Your task to perform on an android device: toggle pop-ups in chrome Image 0: 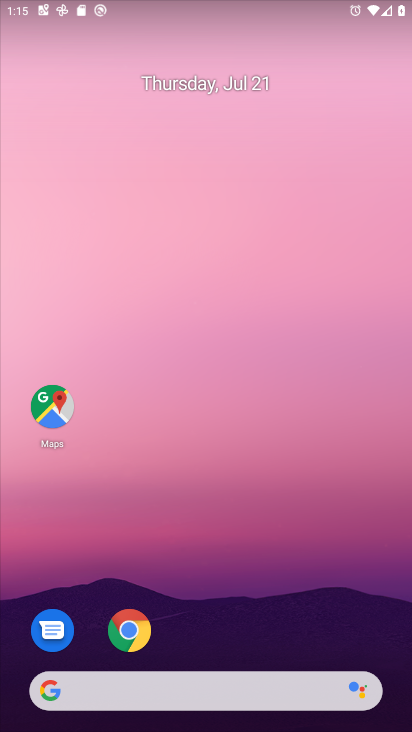
Step 0: click (136, 633)
Your task to perform on an android device: toggle pop-ups in chrome Image 1: 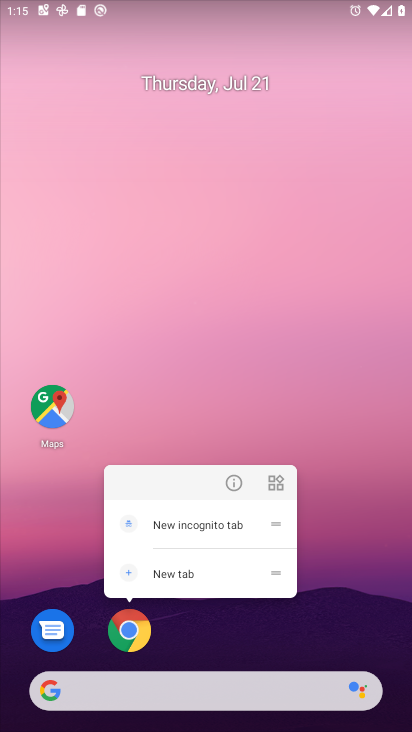
Step 1: click (237, 484)
Your task to perform on an android device: toggle pop-ups in chrome Image 2: 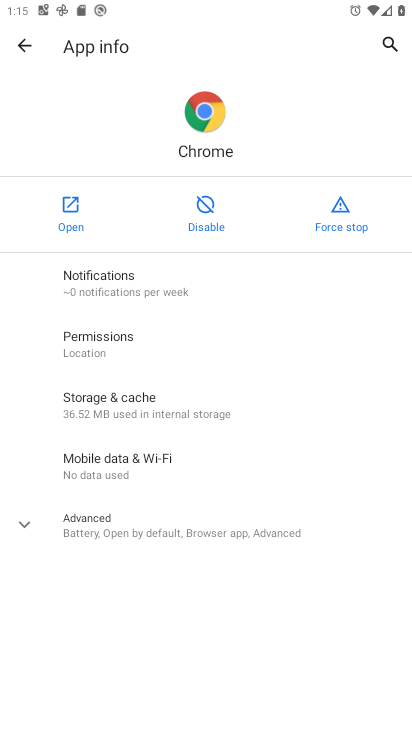
Step 2: click (77, 214)
Your task to perform on an android device: toggle pop-ups in chrome Image 3: 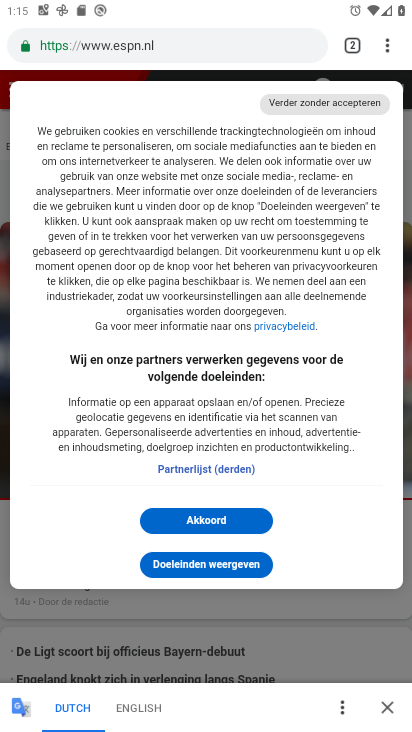
Step 3: drag from (392, 46) to (262, 542)
Your task to perform on an android device: toggle pop-ups in chrome Image 4: 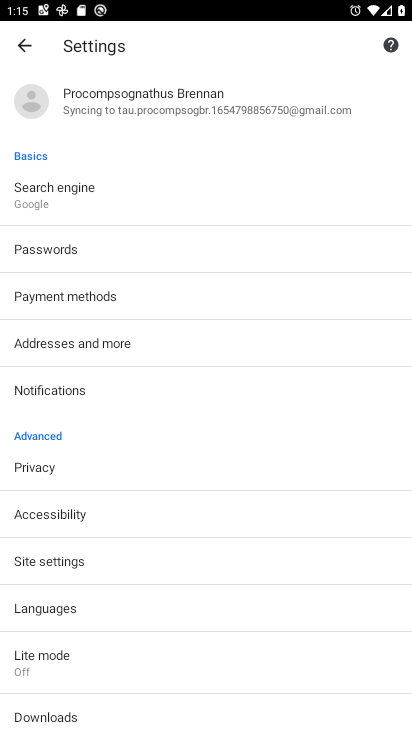
Step 4: click (74, 563)
Your task to perform on an android device: toggle pop-ups in chrome Image 5: 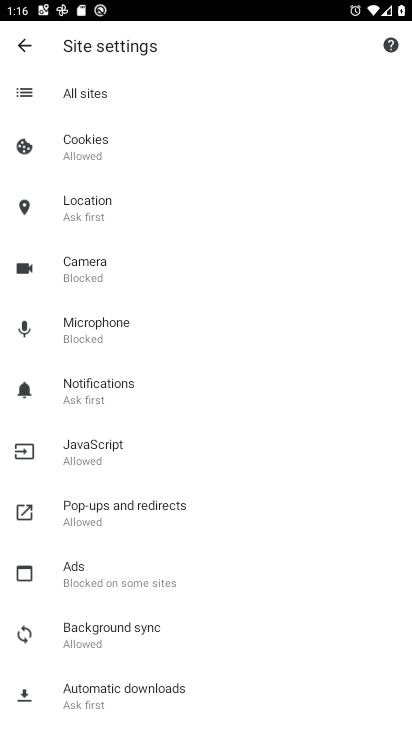
Step 5: click (116, 520)
Your task to perform on an android device: toggle pop-ups in chrome Image 6: 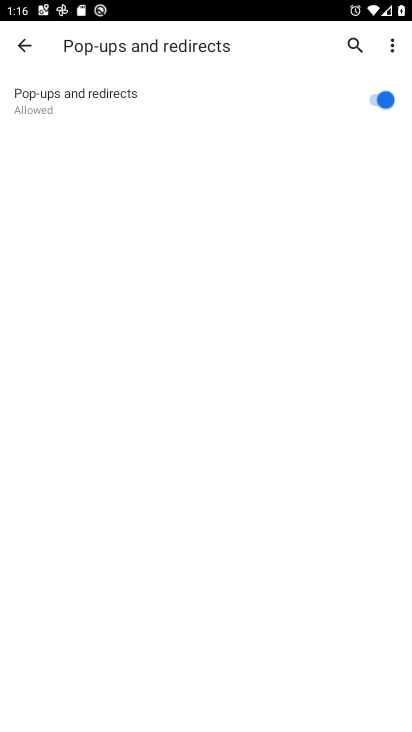
Step 6: click (374, 102)
Your task to perform on an android device: toggle pop-ups in chrome Image 7: 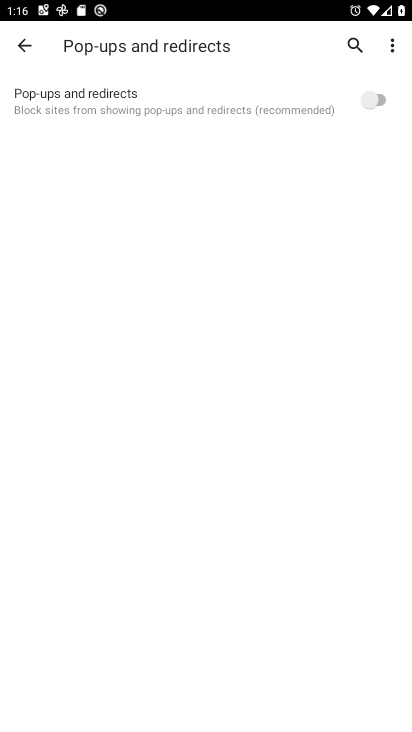
Step 7: task complete